Your task to perform on an android device: Open my contact list Image 0: 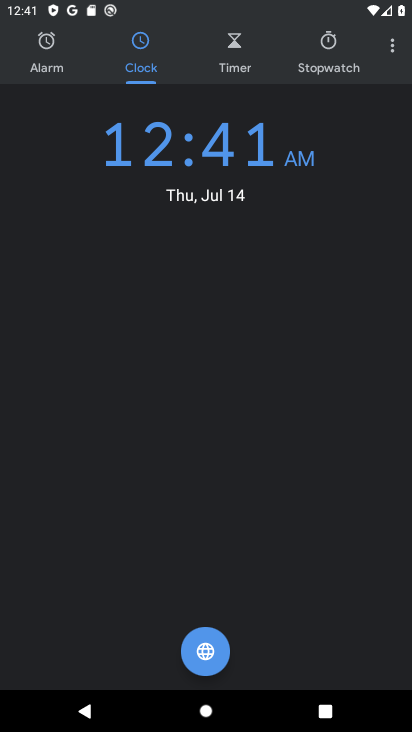
Step 0: press home button
Your task to perform on an android device: Open my contact list Image 1: 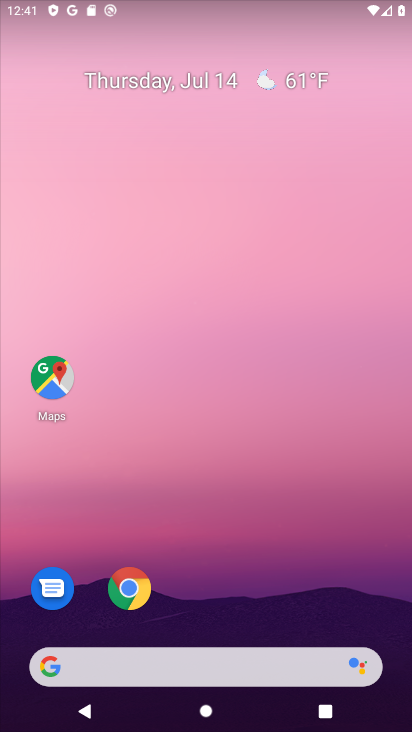
Step 1: drag from (227, 600) to (164, 15)
Your task to perform on an android device: Open my contact list Image 2: 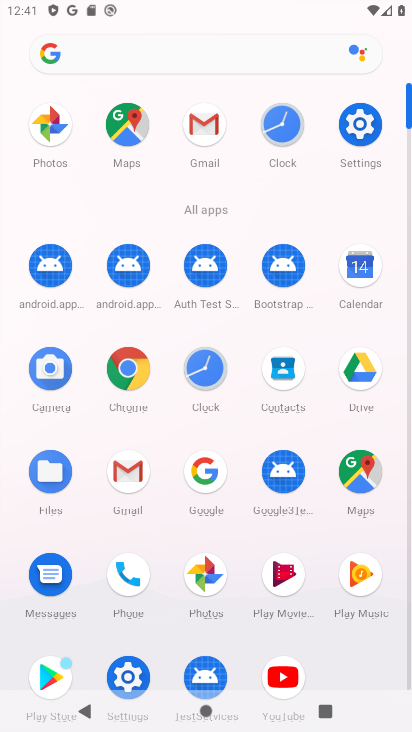
Step 2: click (294, 376)
Your task to perform on an android device: Open my contact list Image 3: 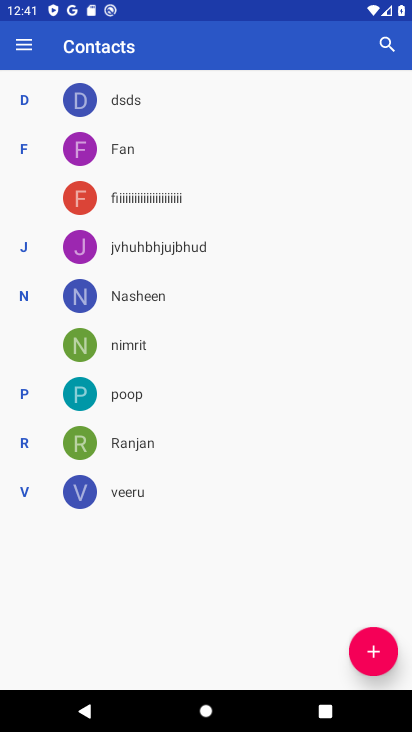
Step 3: task complete